Your task to perform on an android device: Open settings Image 0: 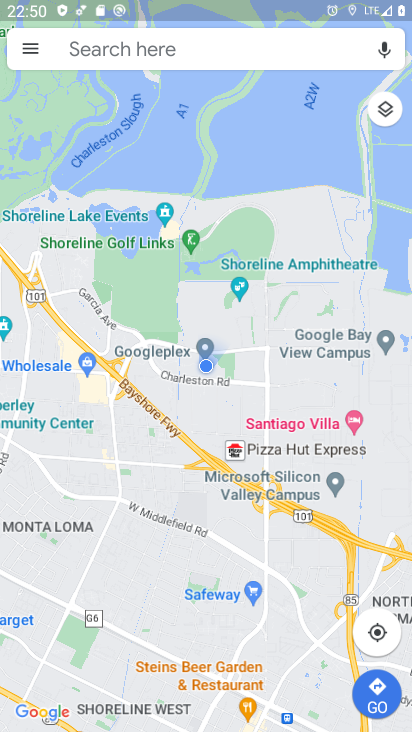
Step 0: drag from (211, 696) to (190, 151)
Your task to perform on an android device: Open settings Image 1: 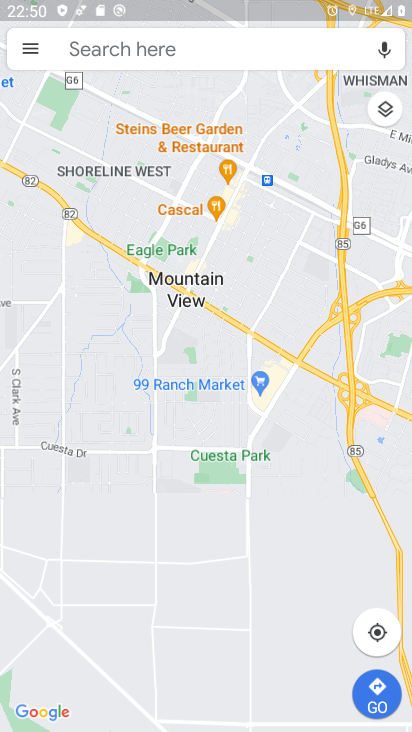
Step 1: press back button
Your task to perform on an android device: Open settings Image 2: 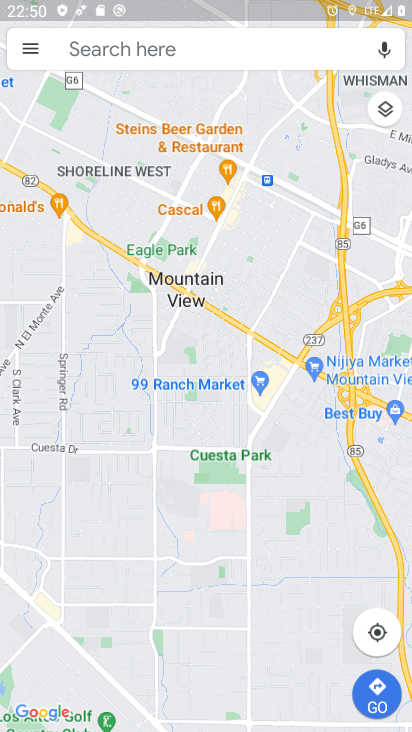
Step 2: press back button
Your task to perform on an android device: Open settings Image 3: 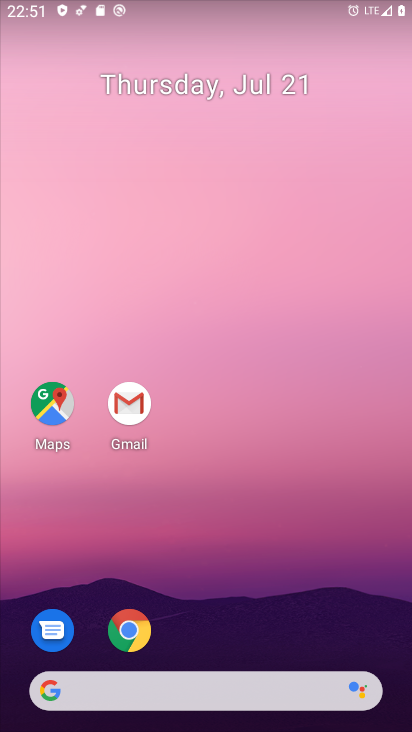
Step 3: drag from (179, 599) to (57, 97)
Your task to perform on an android device: Open settings Image 4: 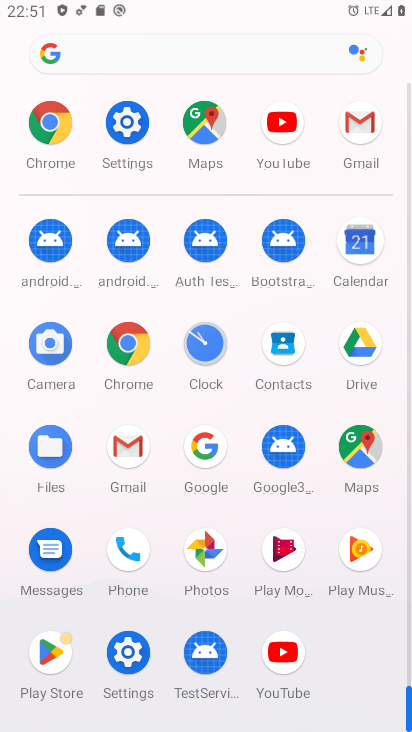
Step 4: click (137, 126)
Your task to perform on an android device: Open settings Image 5: 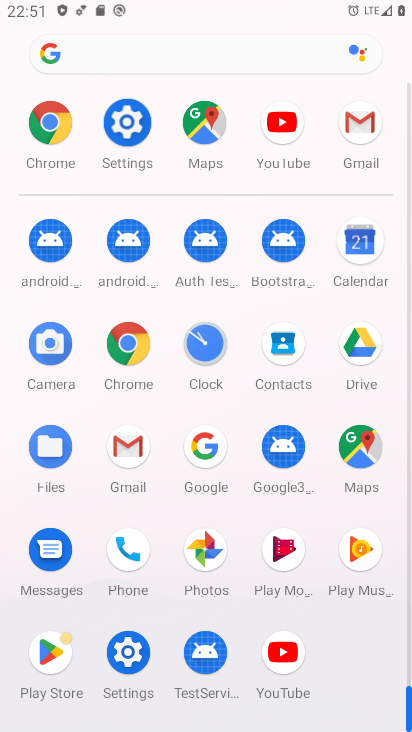
Step 5: click (131, 133)
Your task to perform on an android device: Open settings Image 6: 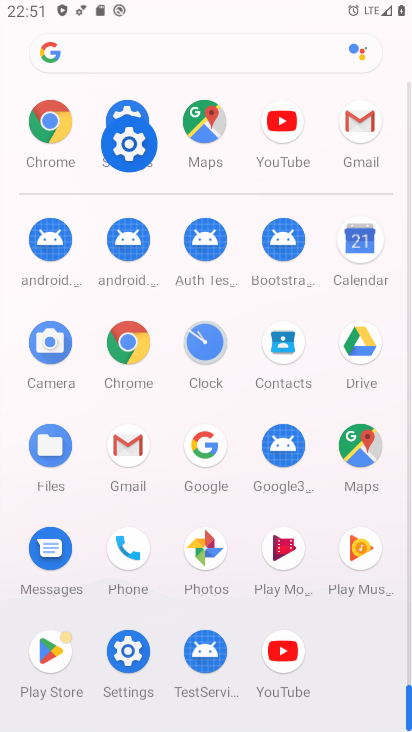
Step 6: click (129, 135)
Your task to perform on an android device: Open settings Image 7: 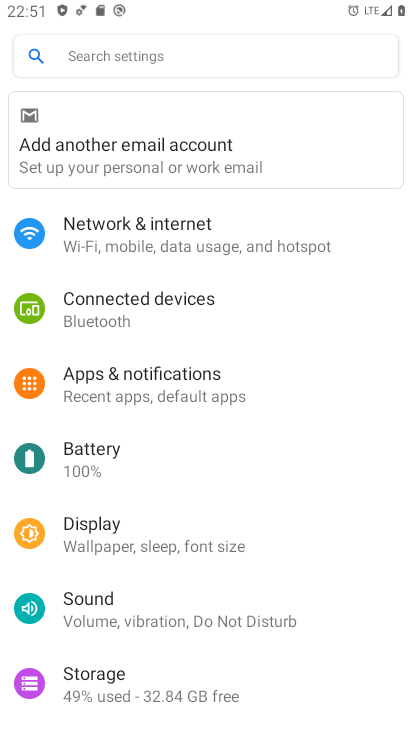
Step 7: task complete